Your task to perform on an android device: toggle show notifications on the lock screen Image 0: 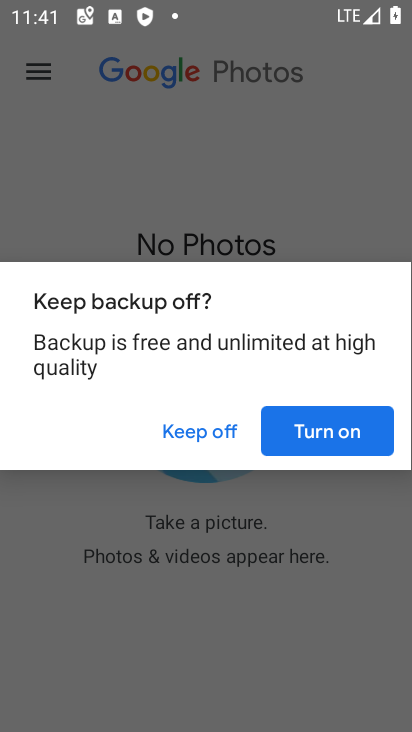
Step 0: press home button
Your task to perform on an android device: toggle show notifications on the lock screen Image 1: 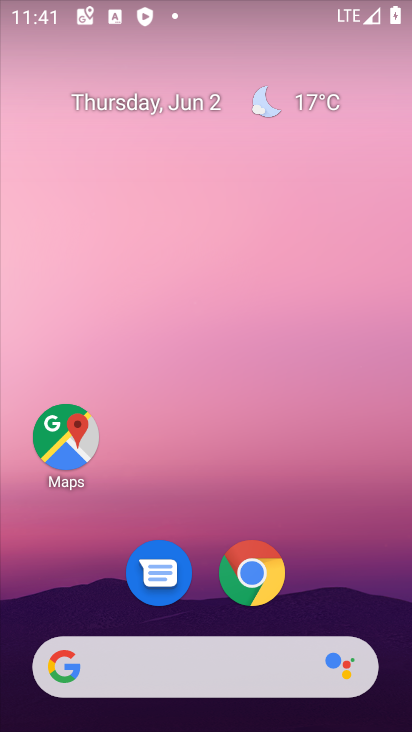
Step 1: drag from (358, 557) to (384, 15)
Your task to perform on an android device: toggle show notifications on the lock screen Image 2: 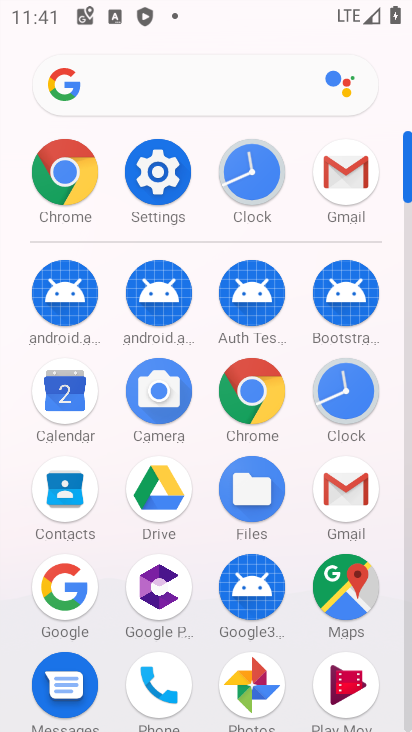
Step 2: click (135, 174)
Your task to perform on an android device: toggle show notifications on the lock screen Image 3: 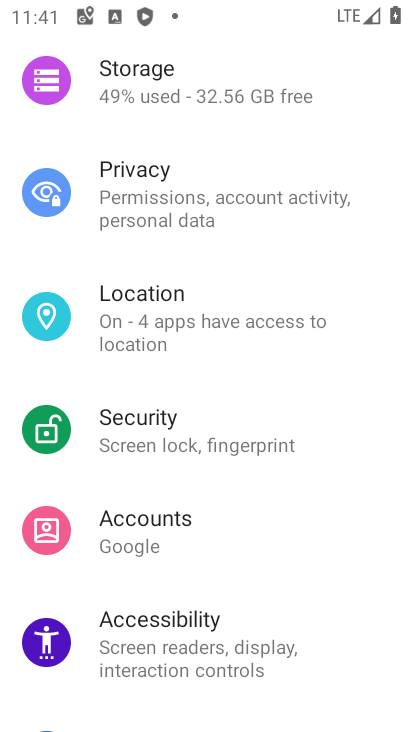
Step 3: drag from (239, 216) to (341, 601)
Your task to perform on an android device: toggle show notifications on the lock screen Image 4: 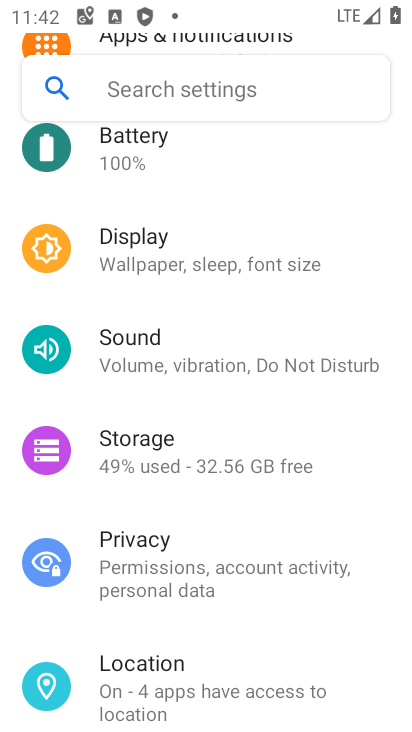
Step 4: drag from (243, 247) to (292, 641)
Your task to perform on an android device: toggle show notifications on the lock screen Image 5: 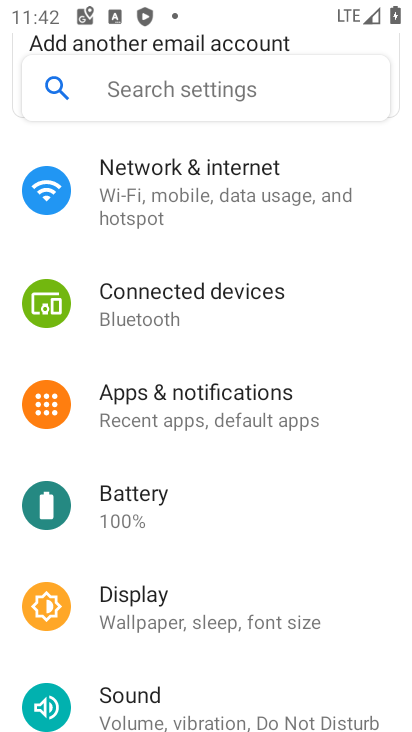
Step 5: drag from (292, 201) to (280, 551)
Your task to perform on an android device: toggle show notifications on the lock screen Image 6: 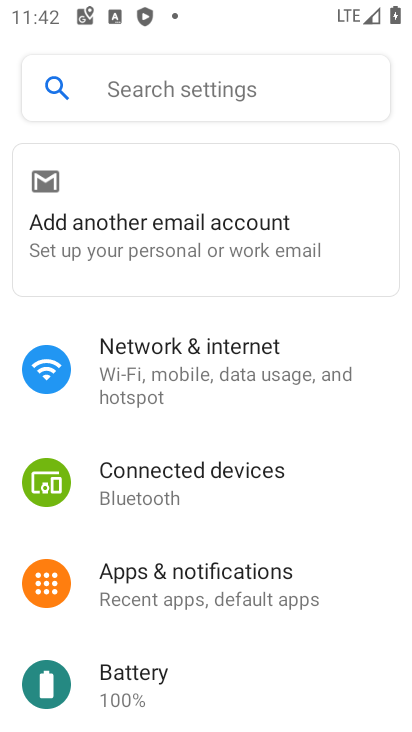
Step 6: click (267, 587)
Your task to perform on an android device: toggle show notifications on the lock screen Image 7: 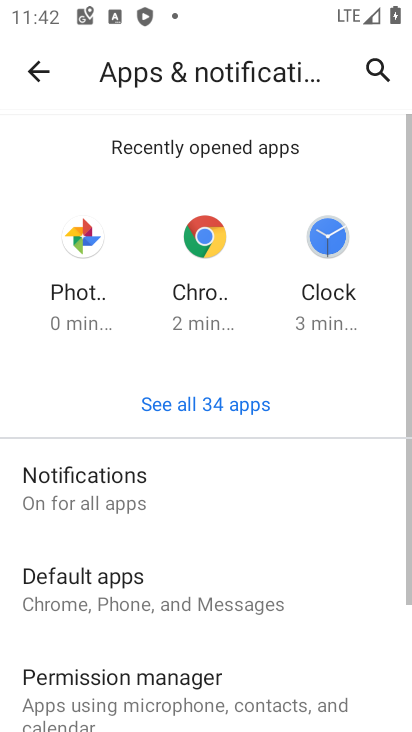
Step 7: click (100, 471)
Your task to perform on an android device: toggle show notifications on the lock screen Image 8: 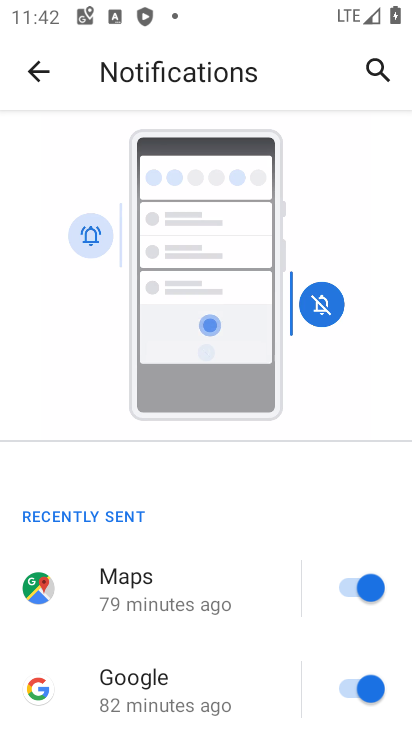
Step 8: drag from (191, 681) to (272, 182)
Your task to perform on an android device: toggle show notifications on the lock screen Image 9: 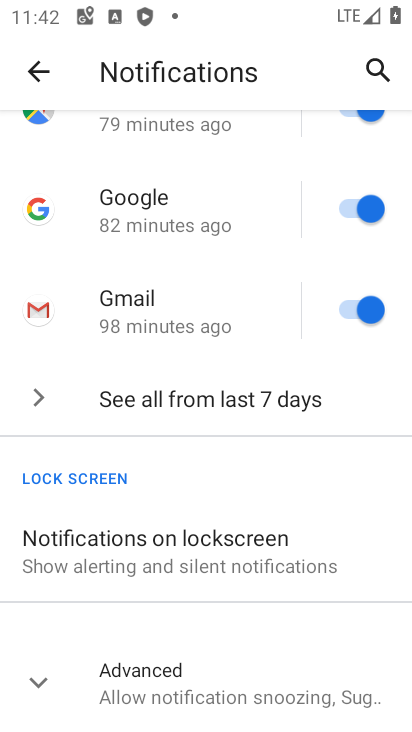
Step 9: drag from (192, 638) to (282, 191)
Your task to perform on an android device: toggle show notifications on the lock screen Image 10: 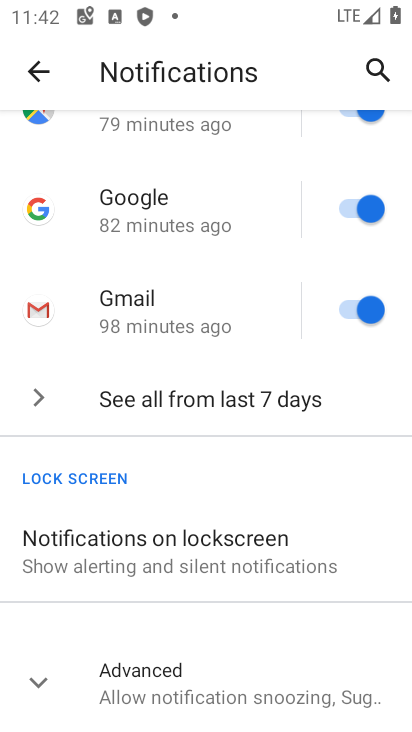
Step 10: click (170, 549)
Your task to perform on an android device: toggle show notifications on the lock screen Image 11: 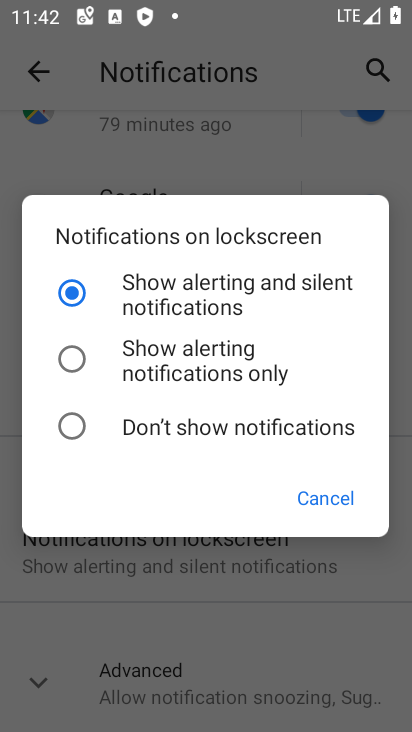
Step 11: click (103, 350)
Your task to perform on an android device: toggle show notifications on the lock screen Image 12: 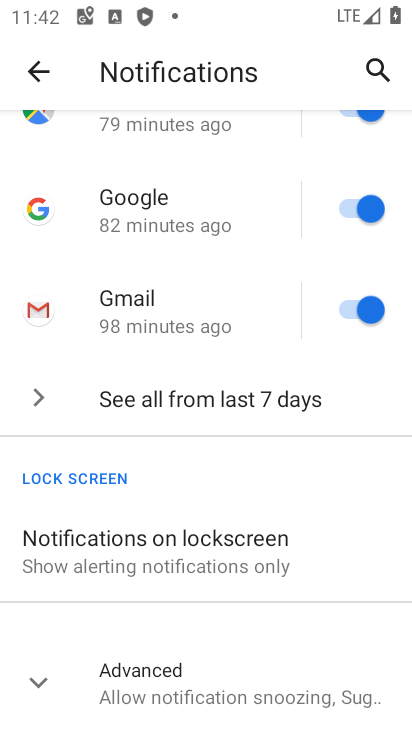
Step 12: task complete